Your task to perform on an android device: toggle pop-ups in chrome Image 0: 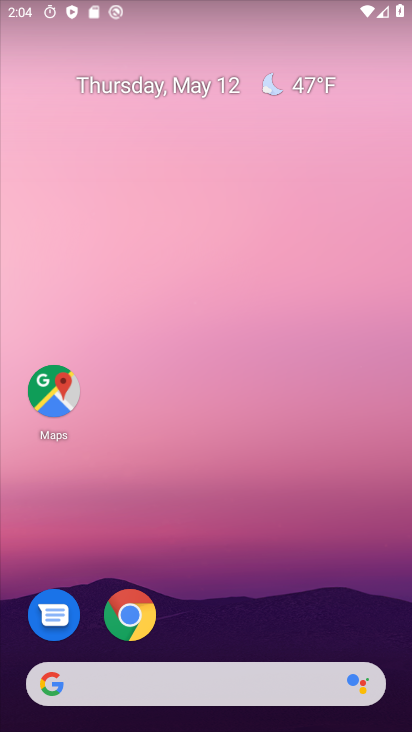
Step 0: click (128, 614)
Your task to perform on an android device: toggle pop-ups in chrome Image 1: 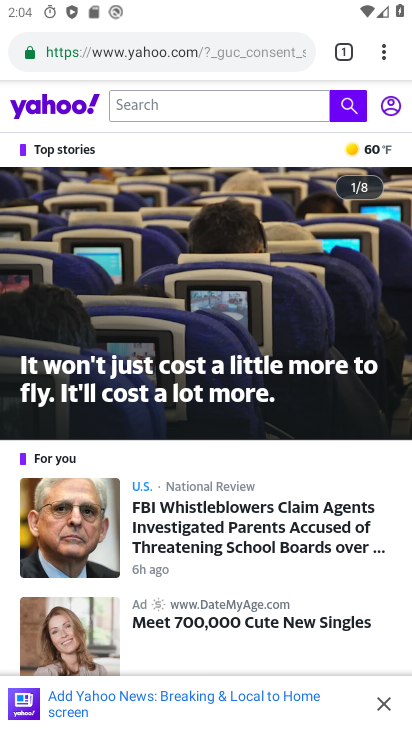
Step 1: click (374, 49)
Your task to perform on an android device: toggle pop-ups in chrome Image 2: 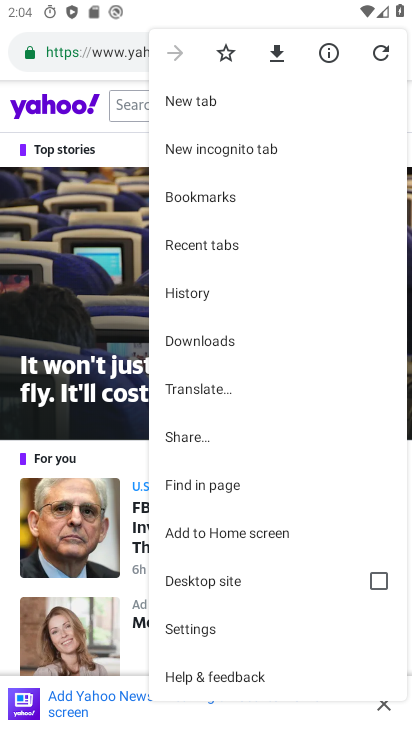
Step 2: click (201, 634)
Your task to perform on an android device: toggle pop-ups in chrome Image 3: 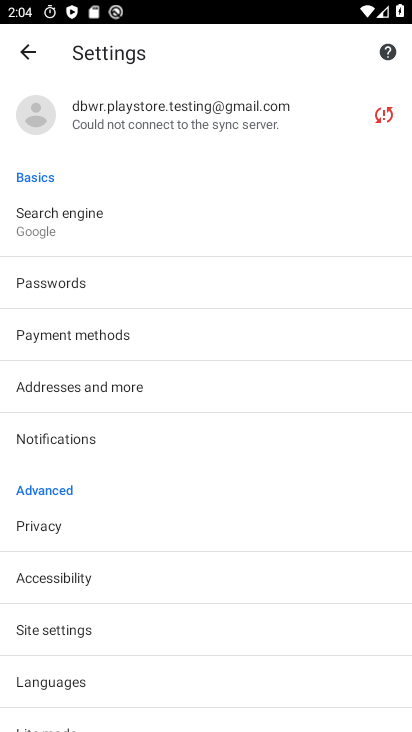
Step 3: drag from (200, 652) to (189, 431)
Your task to perform on an android device: toggle pop-ups in chrome Image 4: 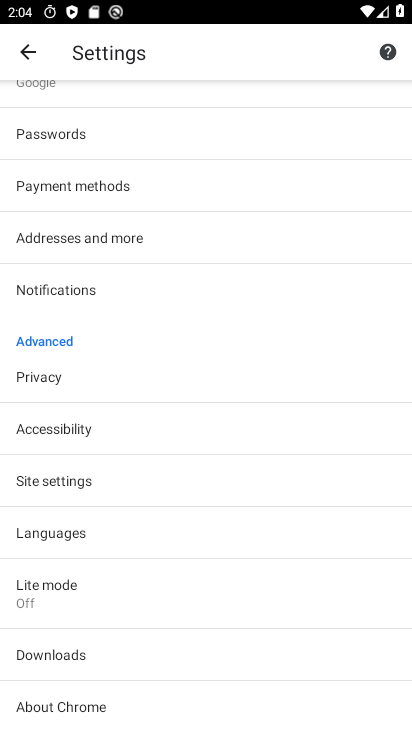
Step 4: click (80, 476)
Your task to perform on an android device: toggle pop-ups in chrome Image 5: 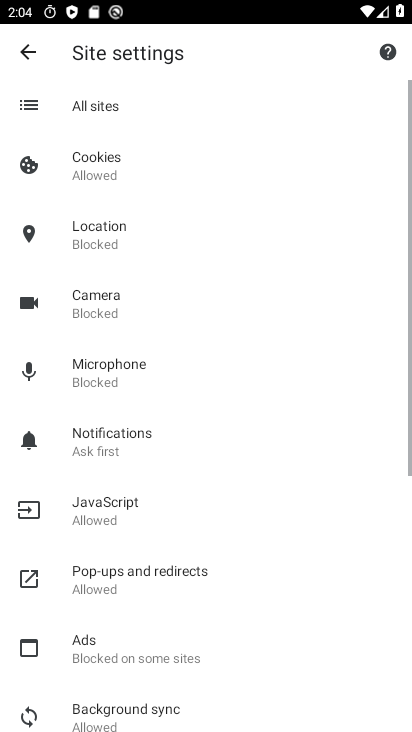
Step 5: click (200, 574)
Your task to perform on an android device: toggle pop-ups in chrome Image 6: 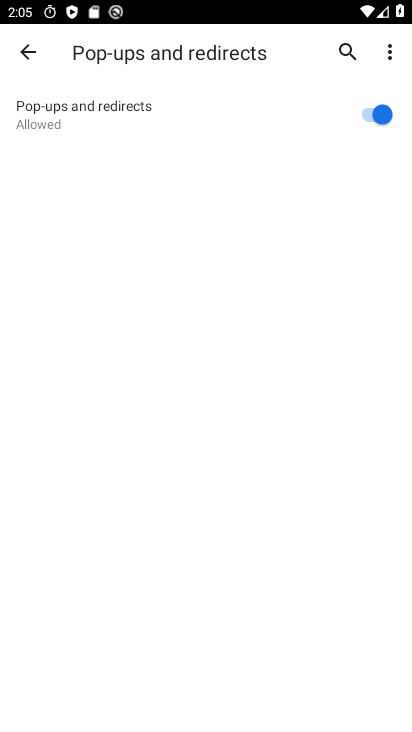
Step 6: click (367, 117)
Your task to perform on an android device: toggle pop-ups in chrome Image 7: 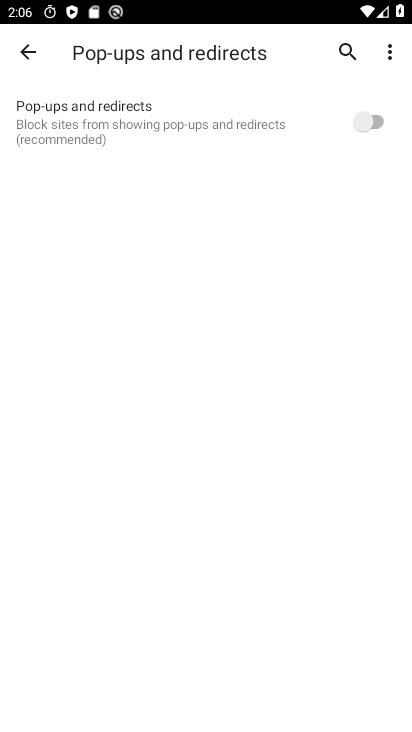
Step 7: task complete